Your task to perform on an android device: What's the weather going to be this weekend? Image 0: 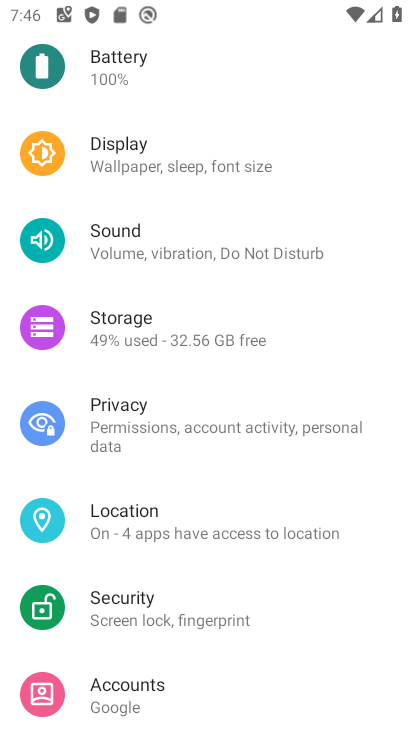
Step 0: press home button
Your task to perform on an android device: What's the weather going to be this weekend? Image 1: 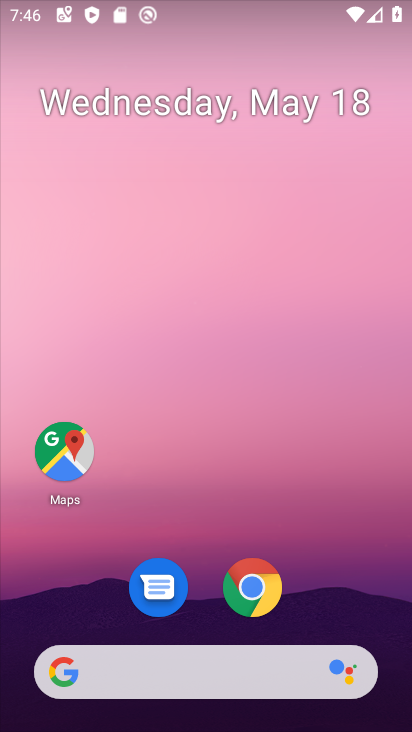
Step 1: click (183, 664)
Your task to perform on an android device: What's the weather going to be this weekend? Image 2: 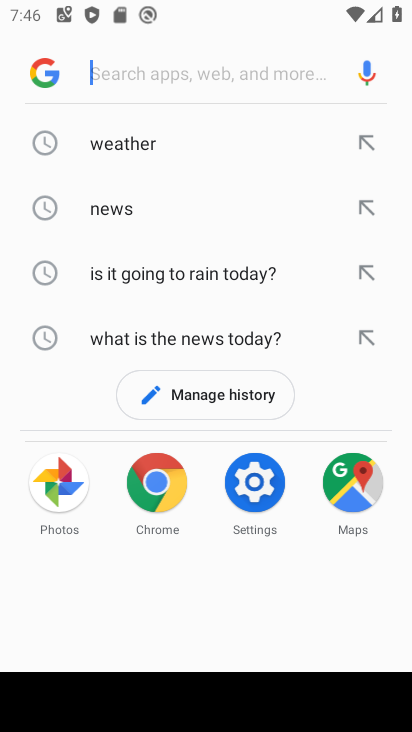
Step 2: click (153, 134)
Your task to perform on an android device: What's the weather going to be this weekend? Image 3: 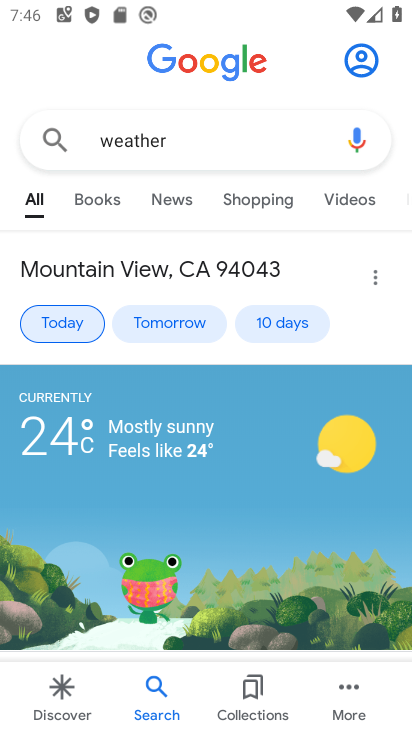
Step 3: click (293, 330)
Your task to perform on an android device: What's the weather going to be this weekend? Image 4: 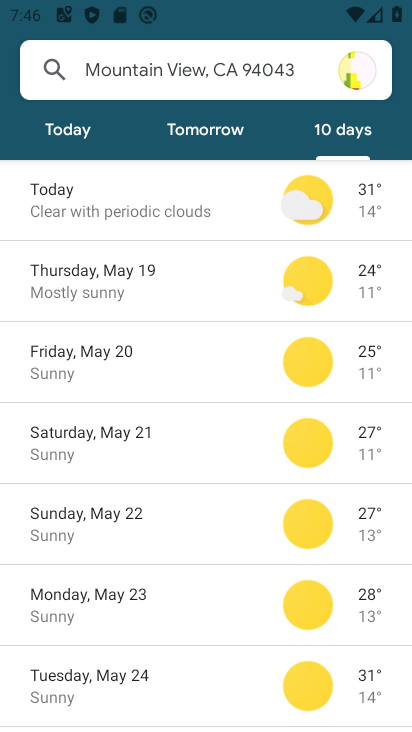
Step 4: task complete